Your task to perform on an android device: turn off javascript in the chrome app Image 0: 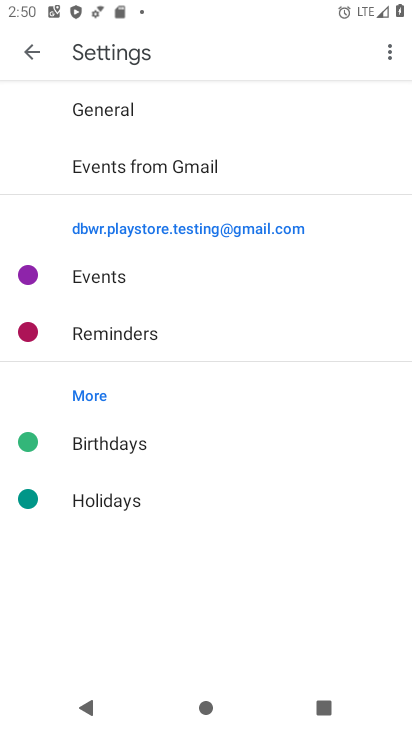
Step 0: press home button
Your task to perform on an android device: turn off javascript in the chrome app Image 1: 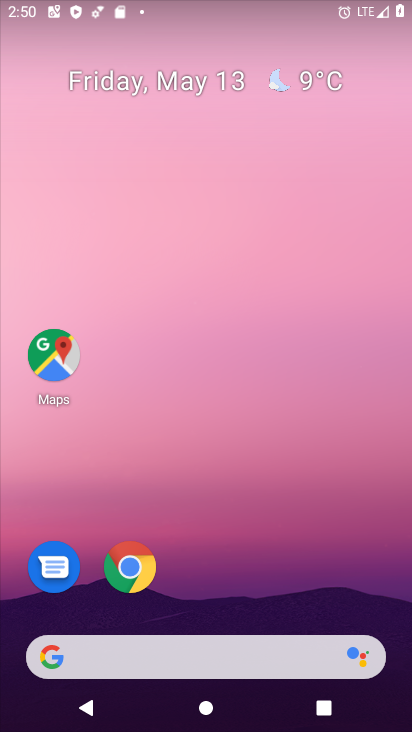
Step 1: drag from (216, 596) to (253, 14)
Your task to perform on an android device: turn off javascript in the chrome app Image 2: 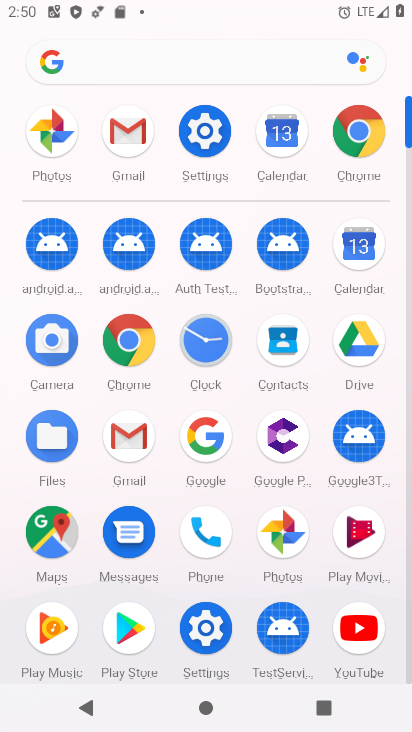
Step 2: click (125, 343)
Your task to perform on an android device: turn off javascript in the chrome app Image 3: 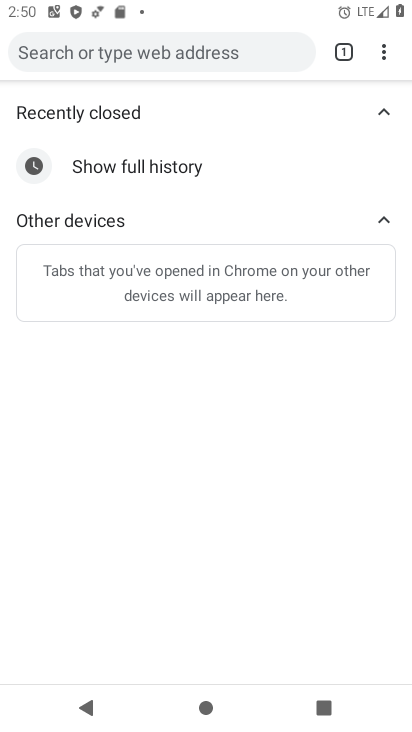
Step 3: click (384, 54)
Your task to perform on an android device: turn off javascript in the chrome app Image 4: 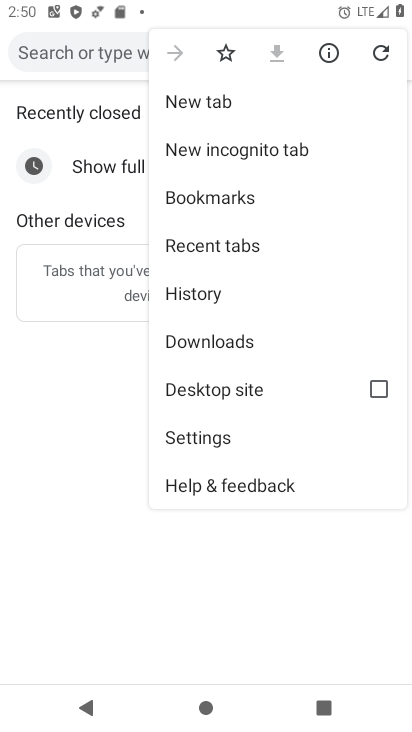
Step 4: click (200, 440)
Your task to perform on an android device: turn off javascript in the chrome app Image 5: 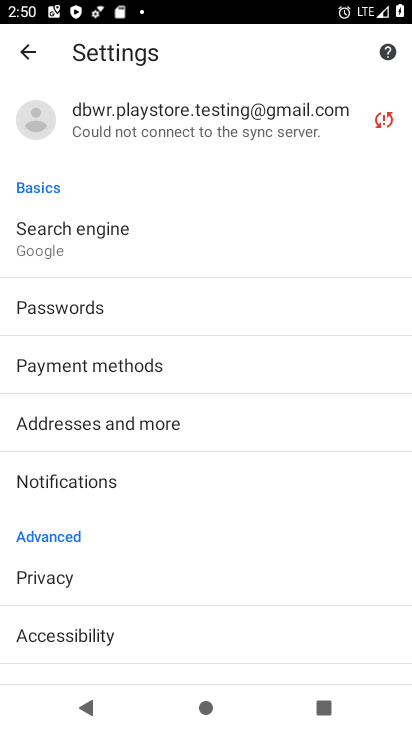
Step 5: drag from (141, 485) to (180, 204)
Your task to perform on an android device: turn off javascript in the chrome app Image 6: 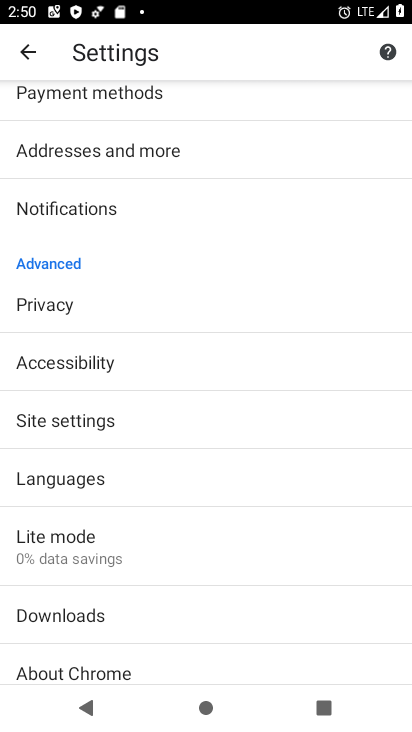
Step 6: click (89, 480)
Your task to perform on an android device: turn off javascript in the chrome app Image 7: 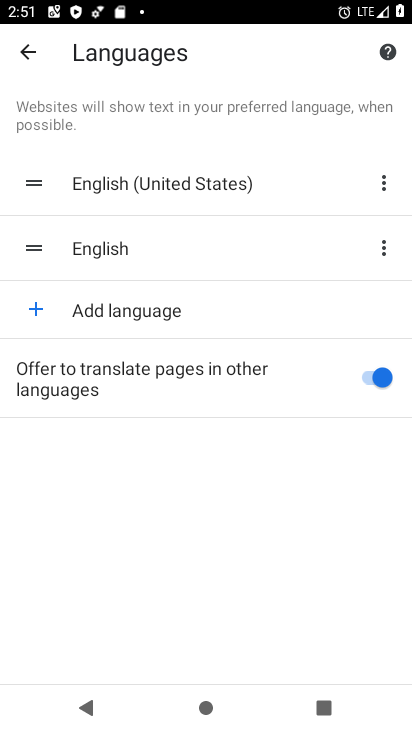
Step 7: click (371, 363)
Your task to perform on an android device: turn off javascript in the chrome app Image 8: 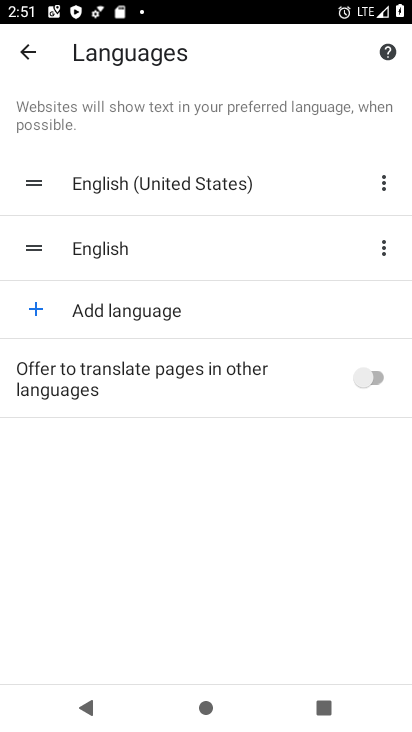
Step 8: task complete